Your task to perform on an android device: turn off javascript in the chrome app Image 0: 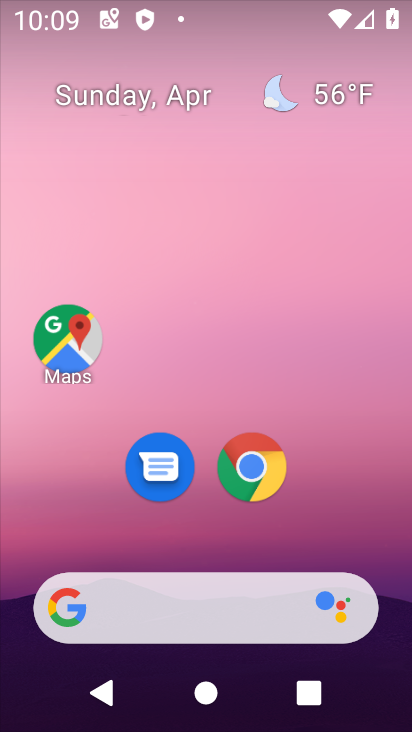
Step 0: drag from (135, 552) to (339, 19)
Your task to perform on an android device: turn off javascript in the chrome app Image 1: 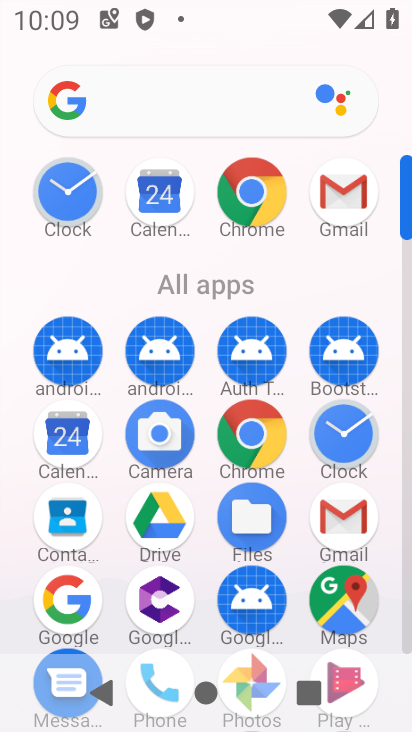
Step 1: click (259, 442)
Your task to perform on an android device: turn off javascript in the chrome app Image 2: 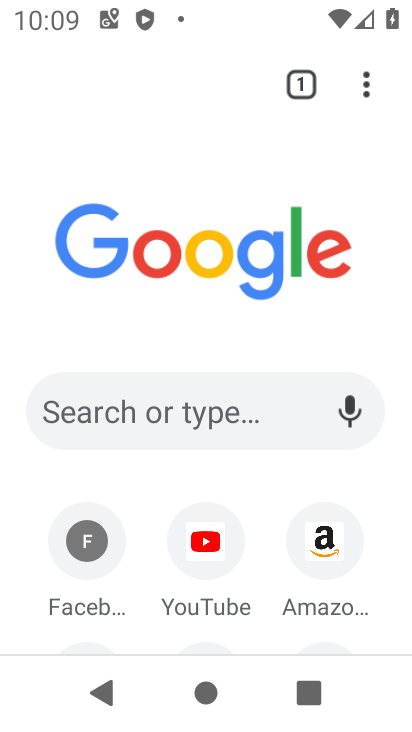
Step 2: click (386, 93)
Your task to perform on an android device: turn off javascript in the chrome app Image 3: 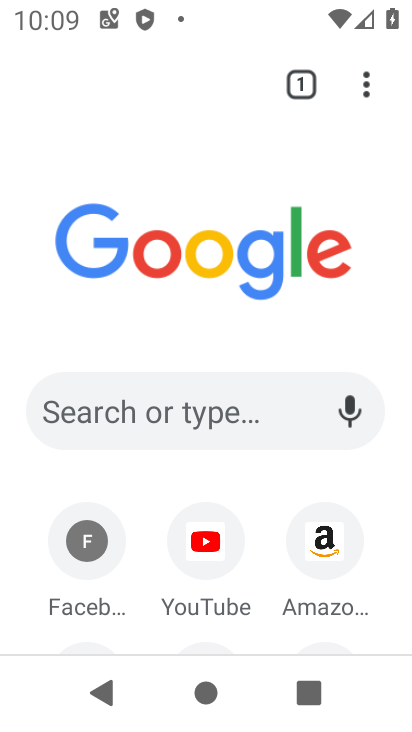
Step 3: drag from (386, 93) to (281, 545)
Your task to perform on an android device: turn off javascript in the chrome app Image 4: 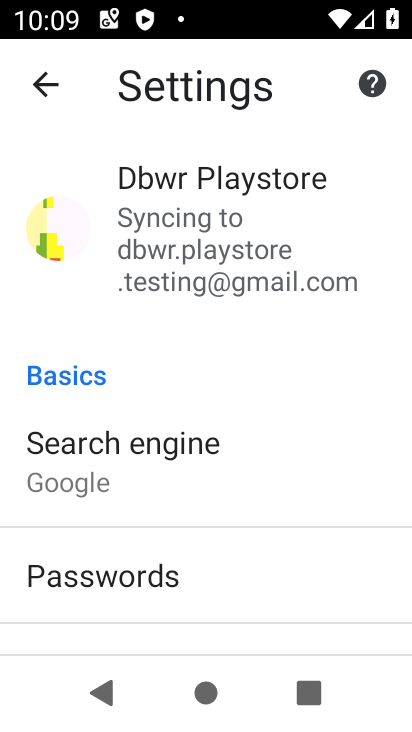
Step 4: drag from (102, 578) to (229, 166)
Your task to perform on an android device: turn off javascript in the chrome app Image 5: 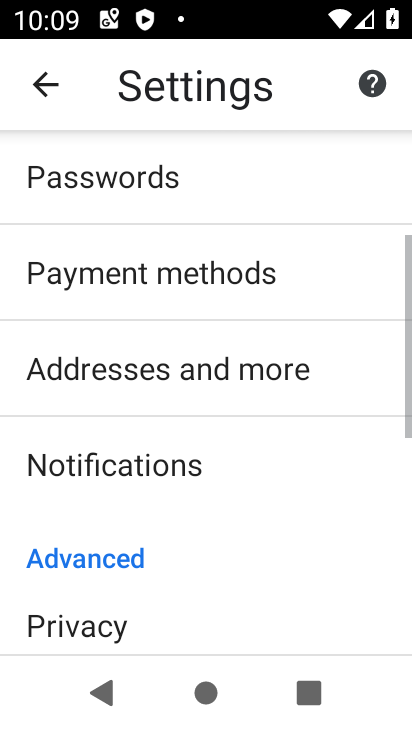
Step 5: drag from (152, 536) to (276, 174)
Your task to perform on an android device: turn off javascript in the chrome app Image 6: 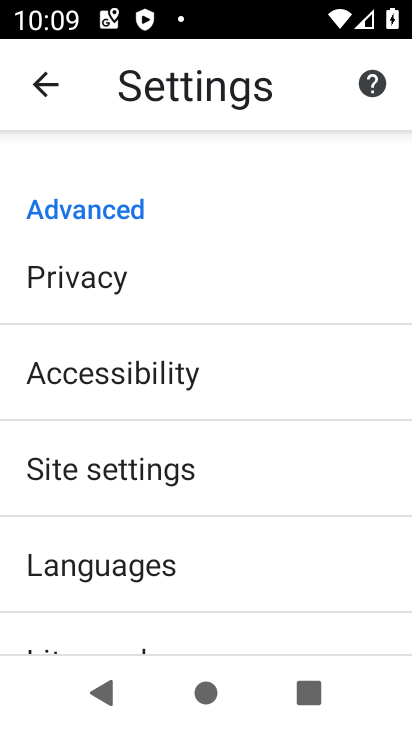
Step 6: drag from (198, 567) to (283, 327)
Your task to perform on an android device: turn off javascript in the chrome app Image 7: 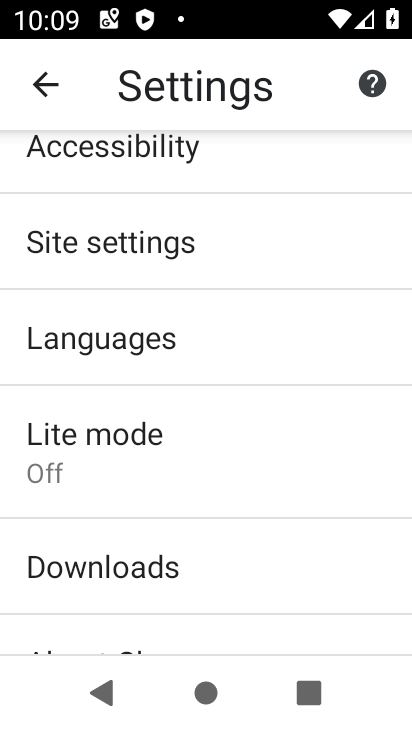
Step 7: click (223, 245)
Your task to perform on an android device: turn off javascript in the chrome app Image 8: 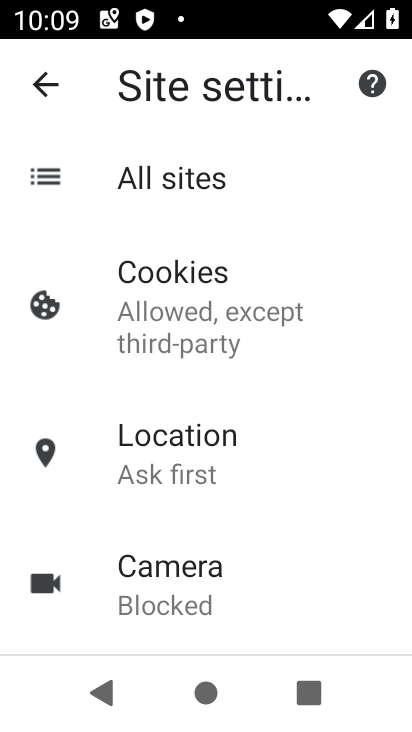
Step 8: drag from (167, 637) to (312, 128)
Your task to perform on an android device: turn off javascript in the chrome app Image 9: 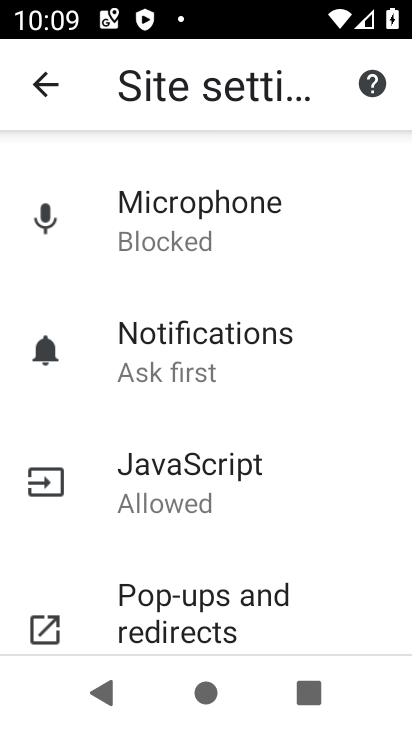
Step 9: click (148, 502)
Your task to perform on an android device: turn off javascript in the chrome app Image 10: 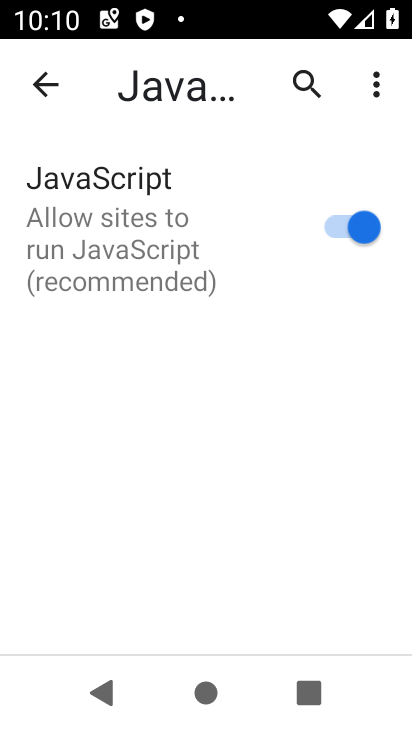
Step 10: click (342, 223)
Your task to perform on an android device: turn off javascript in the chrome app Image 11: 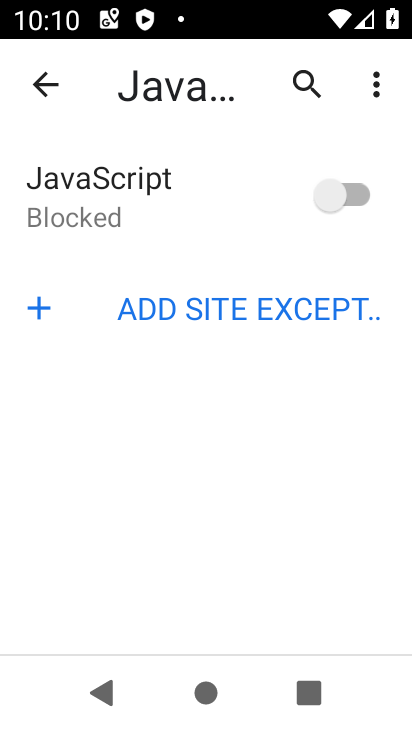
Step 11: task complete